Your task to perform on an android device: Show me the alarms in the clock app Image 0: 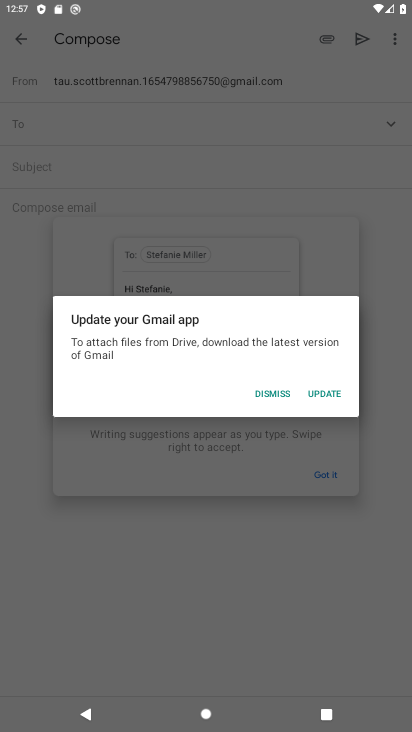
Step 0: press home button
Your task to perform on an android device: Show me the alarms in the clock app Image 1: 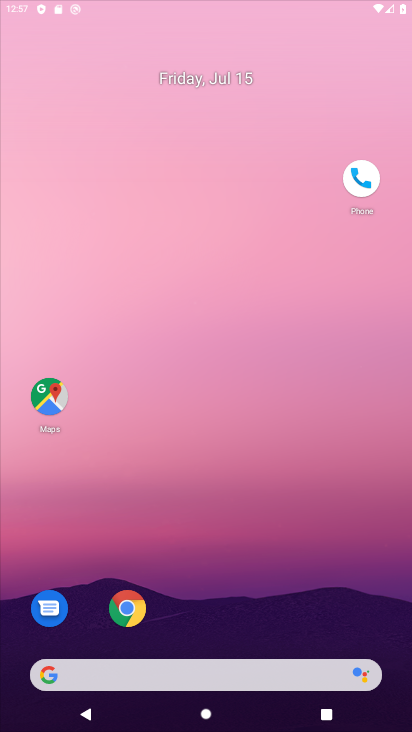
Step 1: drag from (165, 575) to (213, 220)
Your task to perform on an android device: Show me the alarms in the clock app Image 2: 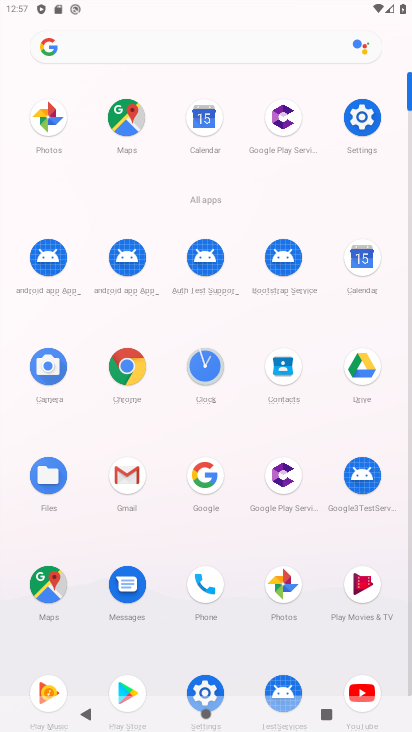
Step 2: click (207, 370)
Your task to perform on an android device: Show me the alarms in the clock app Image 3: 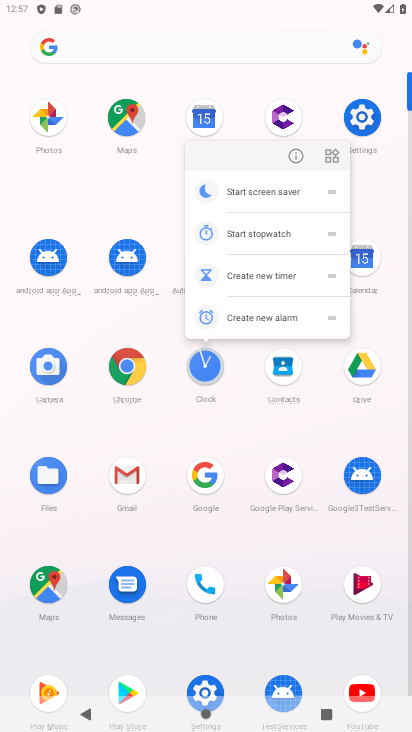
Step 3: click (299, 164)
Your task to perform on an android device: Show me the alarms in the clock app Image 4: 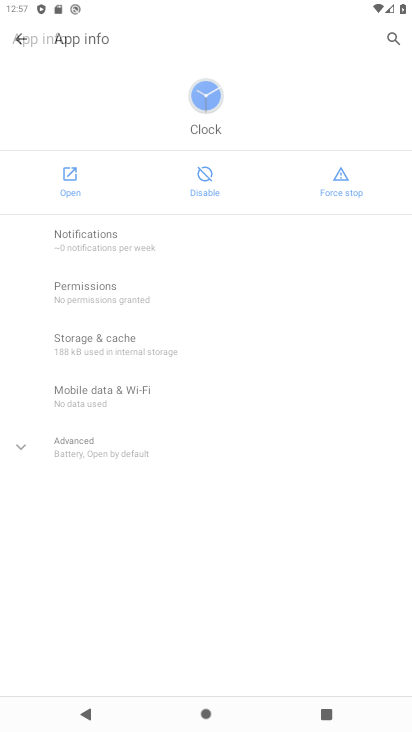
Step 4: drag from (165, 617) to (176, 262)
Your task to perform on an android device: Show me the alarms in the clock app Image 5: 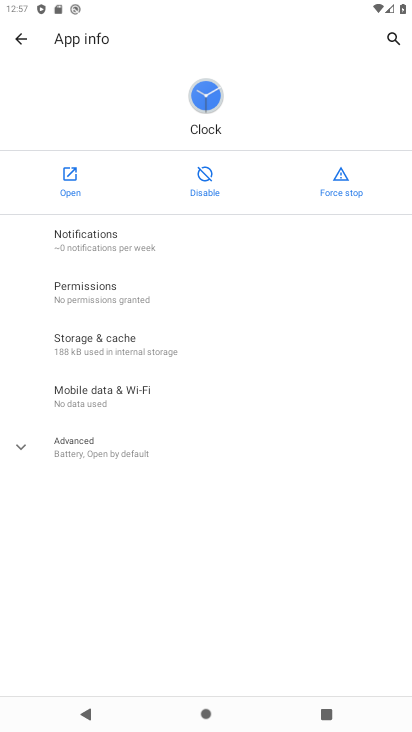
Step 5: click (57, 184)
Your task to perform on an android device: Show me the alarms in the clock app Image 6: 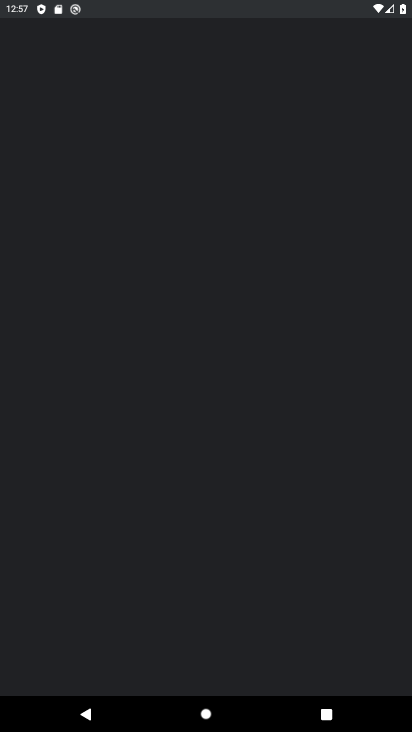
Step 6: drag from (180, 605) to (215, 257)
Your task to perform on an android device: Show me the alarms in the clock app Image 7: 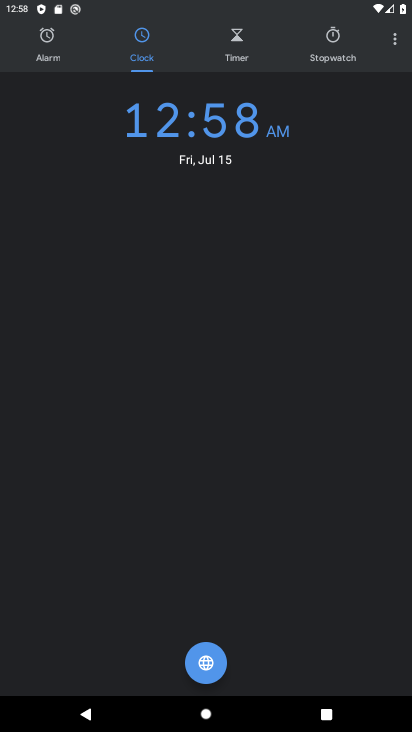
Step 7: click (127, 43)
Your task to perform on an android device: Show me the alarms in the clock app Image 8: 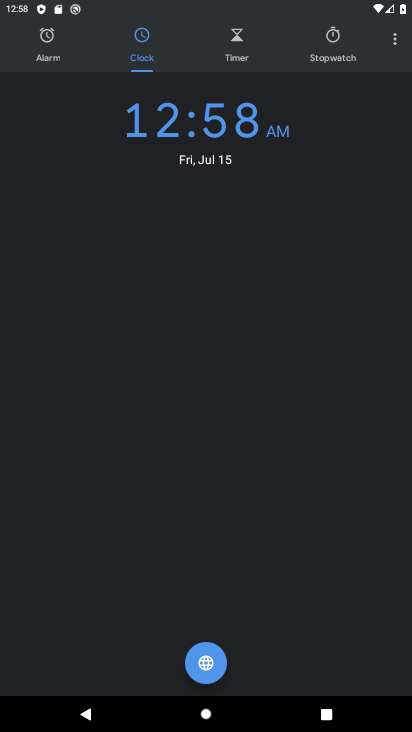
Step 8: drag from (183, 404) to (192, 184)
Your task to perform on an android device: Show me the alarms in the clock app Image 9: 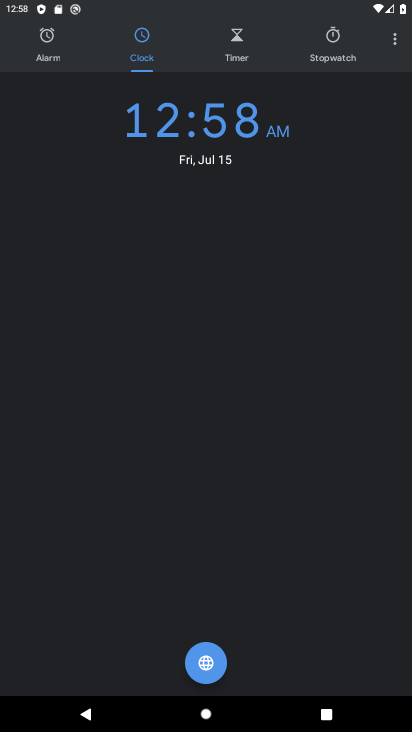
Step 9: drag from (223, 422) to (192, 245)
Your task to perform on an android device: Show me the alarms in the clock app Image 10: 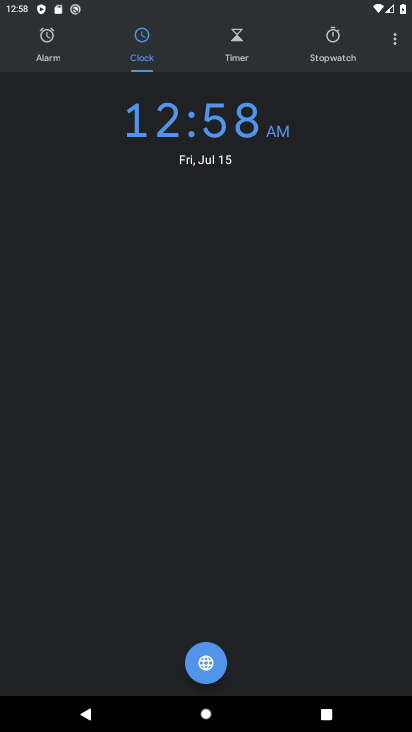
Step 10: drag from (201, 150) to (204, 80)
Your task to perform on an android device: Show me the alarms in the clock app Image 11: 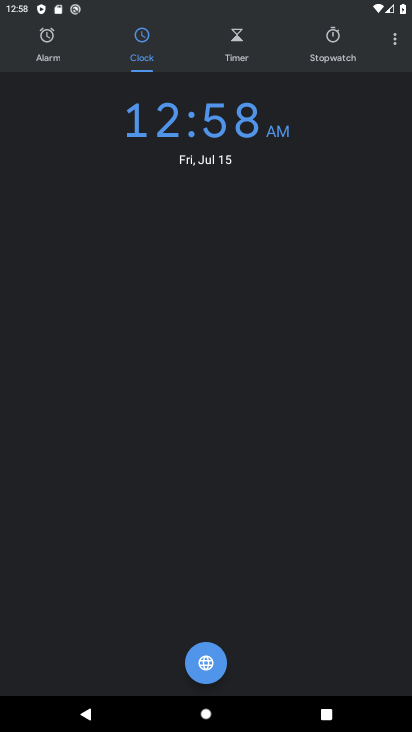
Step 11: click (143, 33)
Your task to perform on an android device: Show me the alarms in the clock app Image 12: 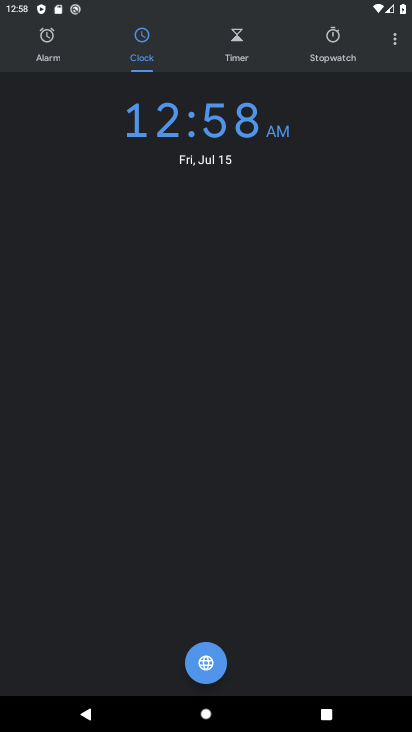
Step 12: click (53, 44)
Your task to perform on an android device: Show me the alarms in the clock app Image 13: 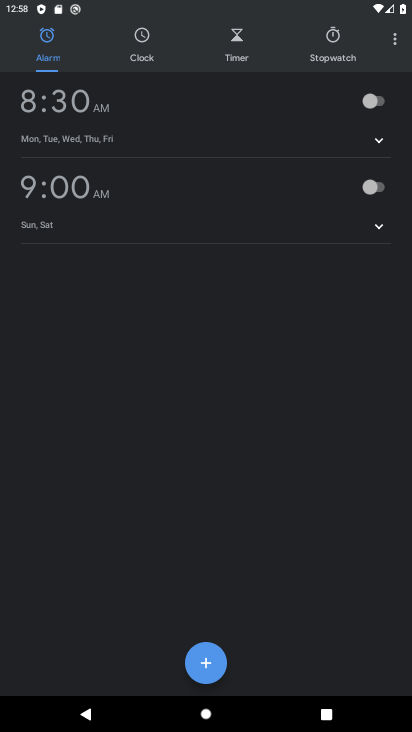
Step 13: click (134, 41)
Your task to perform on an android device: Show me the alarms in the clock app Image 14: 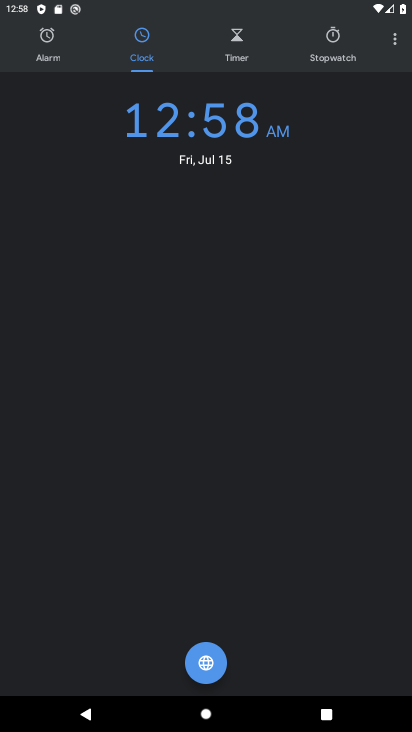
Step 14: task complete